Your task to perform on an android device: Open the phone app and click the voicemail tab. Image 0: 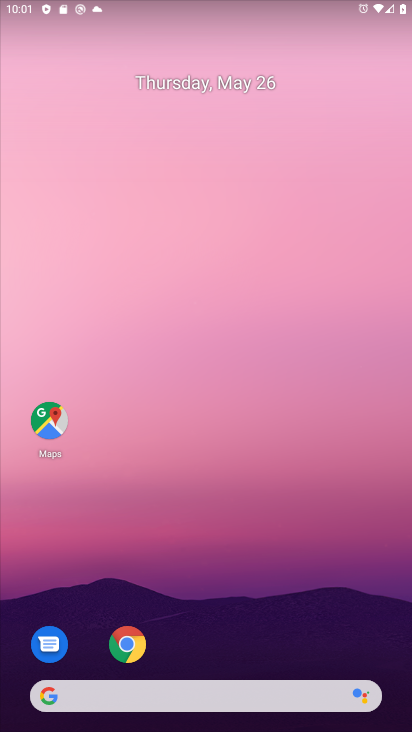
Step 0: drag from (248, 568) to (291, 228)
Your task to perform on an android device: Open the phone app and click the voicemail tab. Image 1: 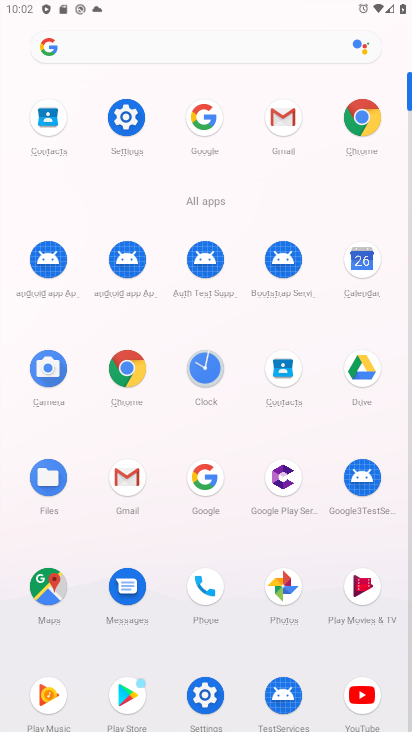
Step 1: click (199, 597)
Your task to perform on an android device: Open the phone app and click the voicemail tab. Image 2: 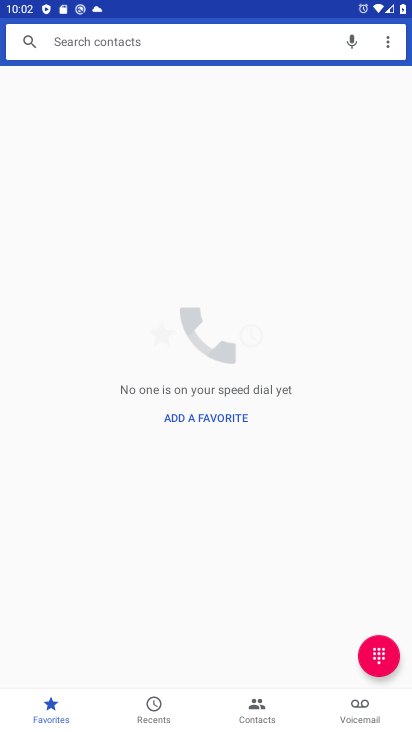
Step 2: click (363, 700)
Your task to perform on an android device: Open the phone app and click the voicemail tab. Image 3: 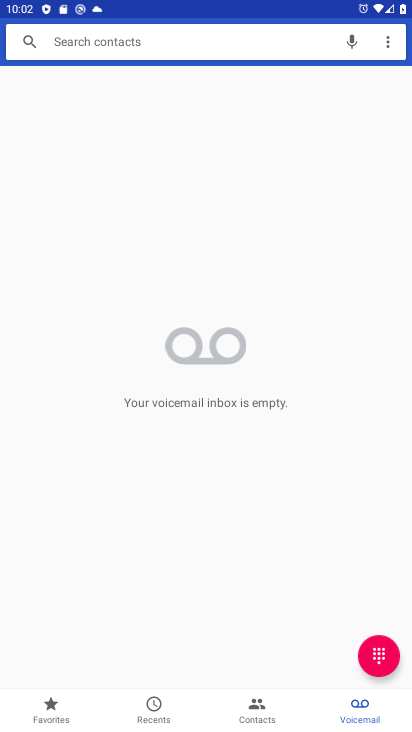
Step 3: task complete